Your task to perform on an android device: Google the capital of Paraguay Image 0: 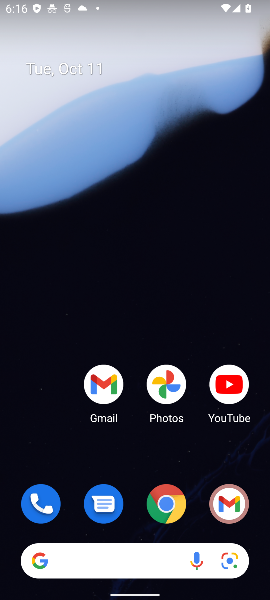
Step 0: click (134, 555)
Your task to perform on an android device: Google the capital of Paraguay Image 1: 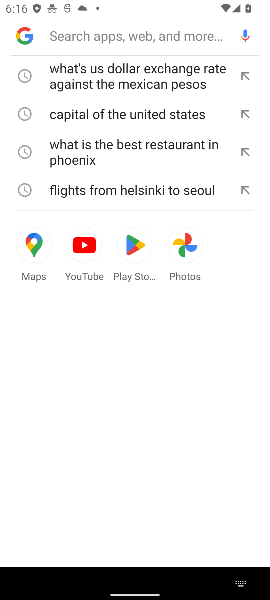
Step 1: click (71, 42)
Your task to perform on an android device: Google the capital of Paraguay Image 2: 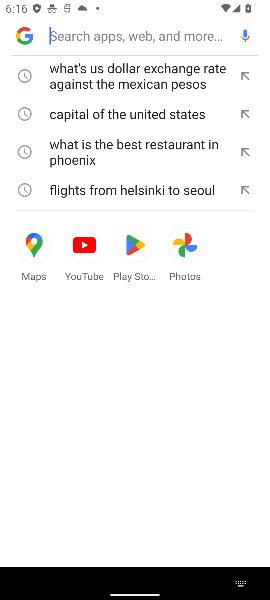
Step 2: type "capital of Paraguay"
Your task to perform on an android device: Google the capital of Paraguay Image 3: 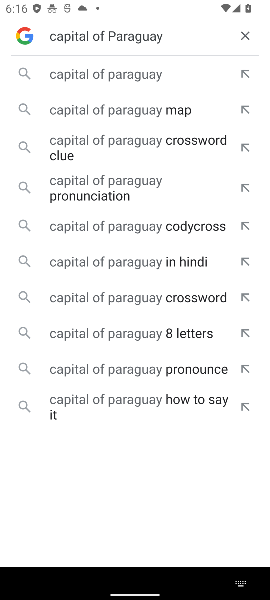
Step 3: click (124, 71)
Your task to perform on an android device: Google the capital of Paraguay Image 4: 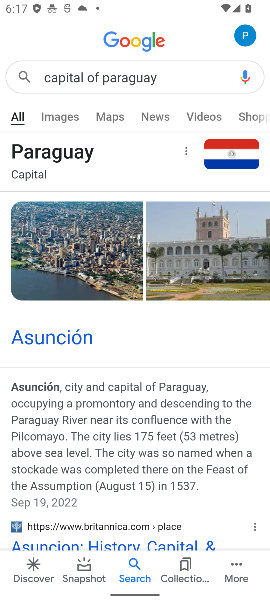
Step 4: task complete